Your task to perform on an android device: install app "DoorDash - Food Delivery" Image 0: 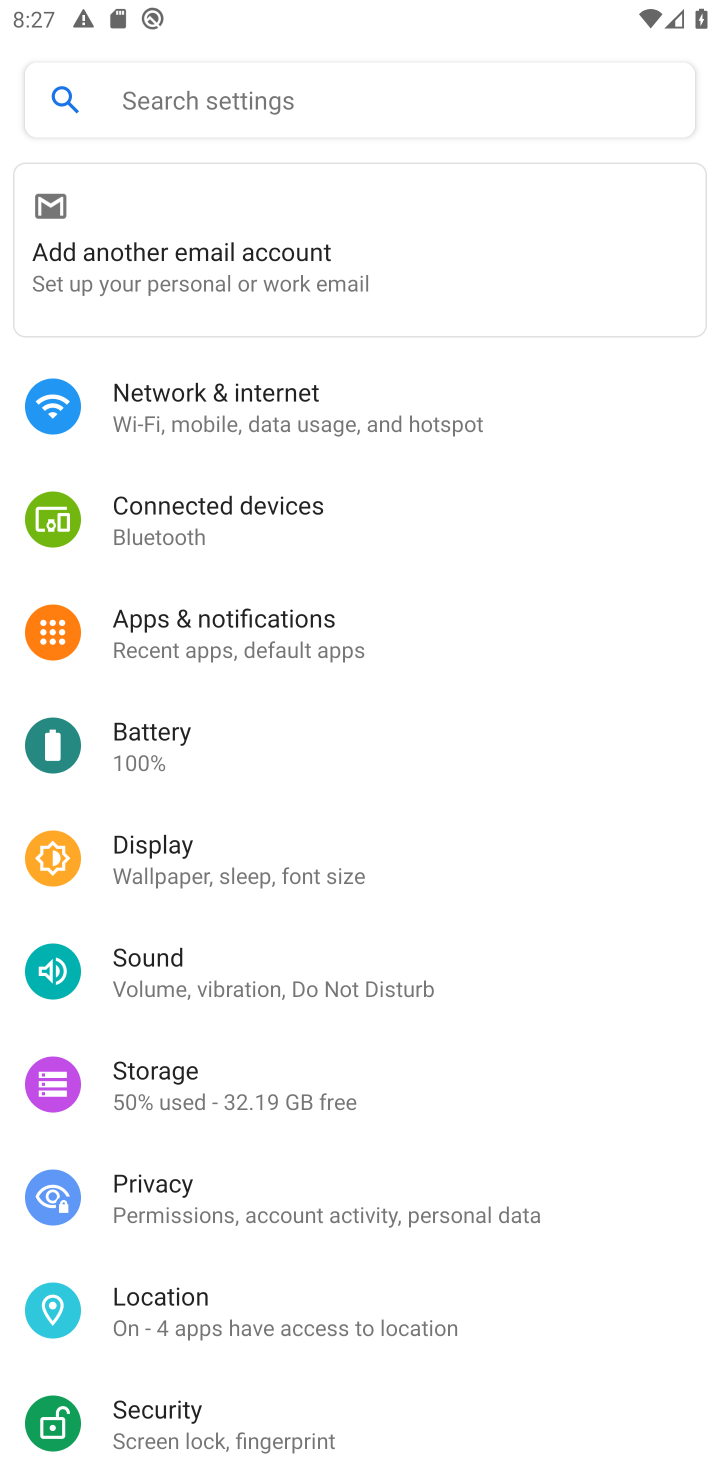
Step 0: press home button
Your task to perform on an android device: install app "DoorDash - Food Delivery" Image 1: 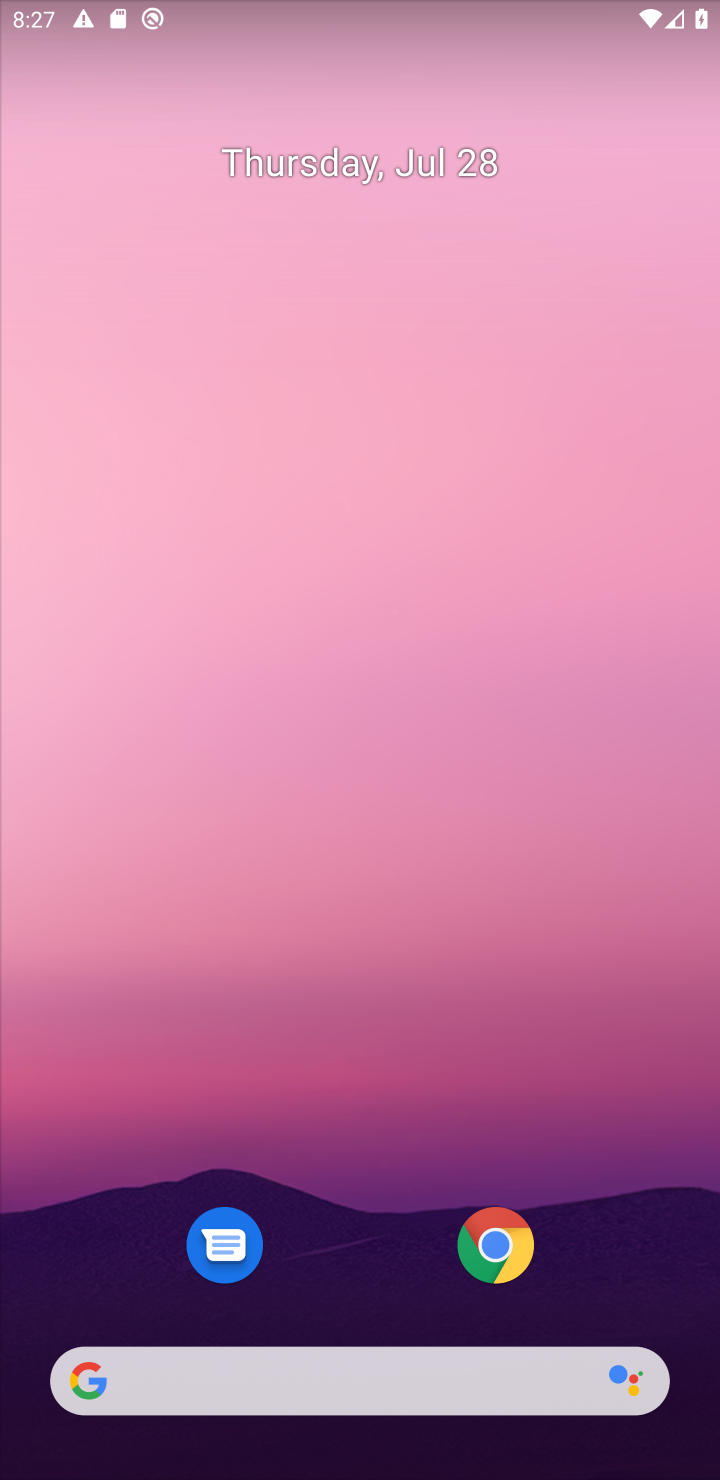
Step 1: drag from (394, 1259) to (269, 246)
Your task to perform on an android device: install app "DoorDash - Food Delivery" Image 2: 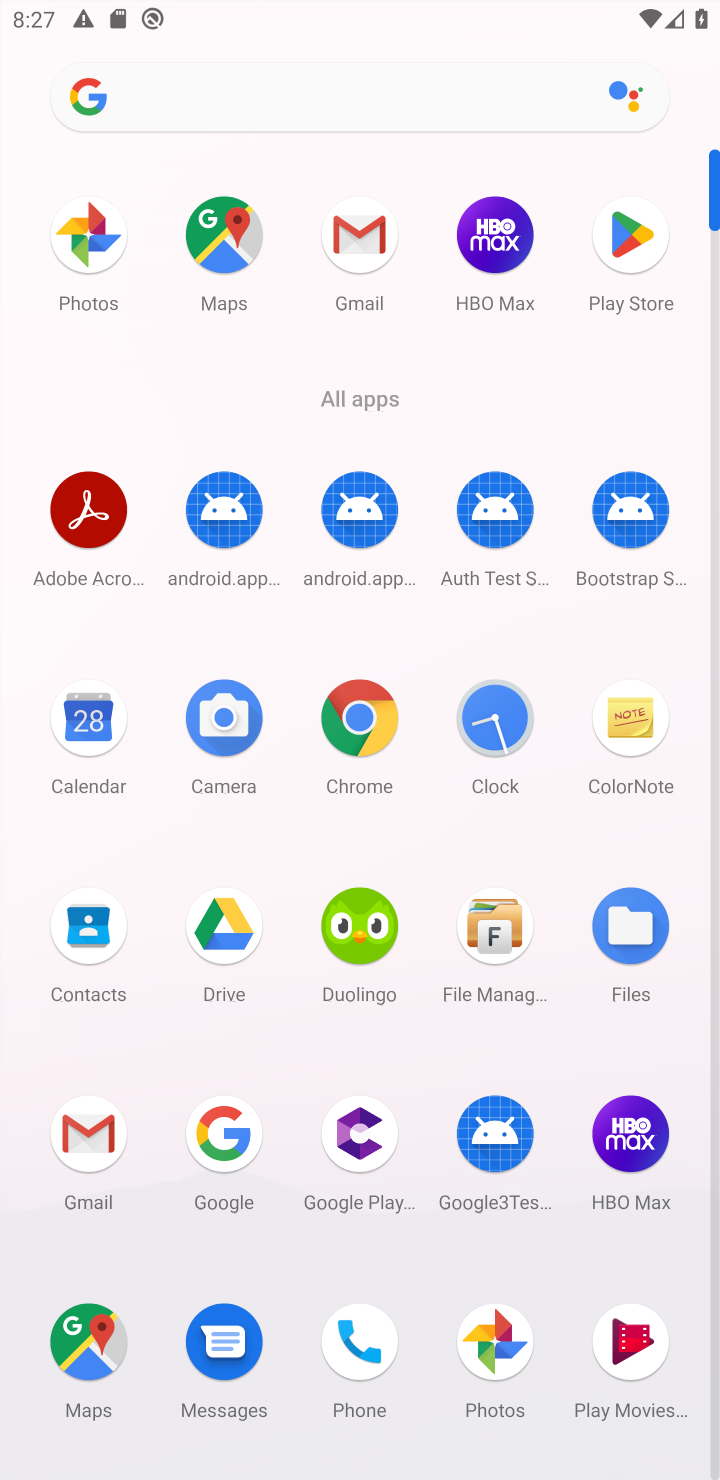
Step 2: click (630, 217)
Your task to perform on an android device: install app "DoorDash - Food Delivery" Image 3: 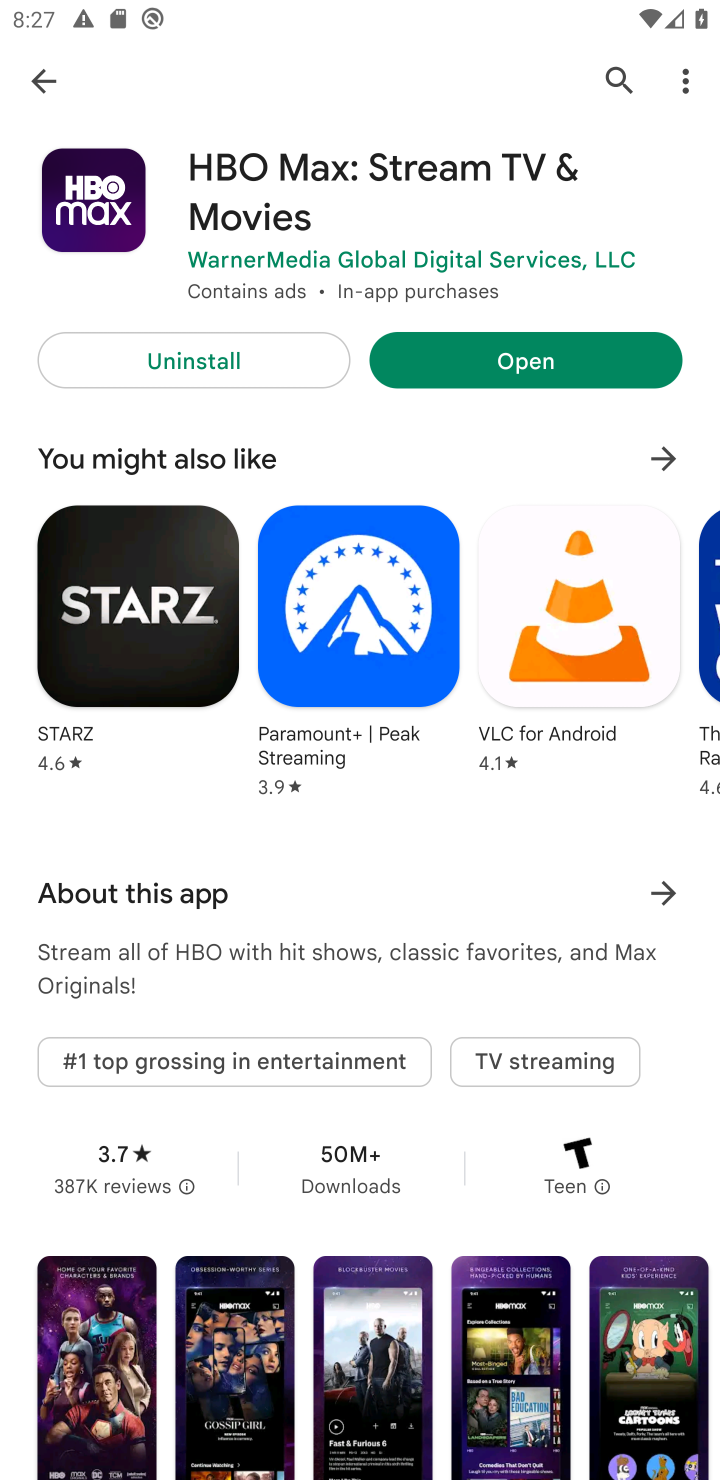
Step 3: click (626, 86)
Your task to perform on an android device: install app "DoorDash - Food Delivery" Image 4: 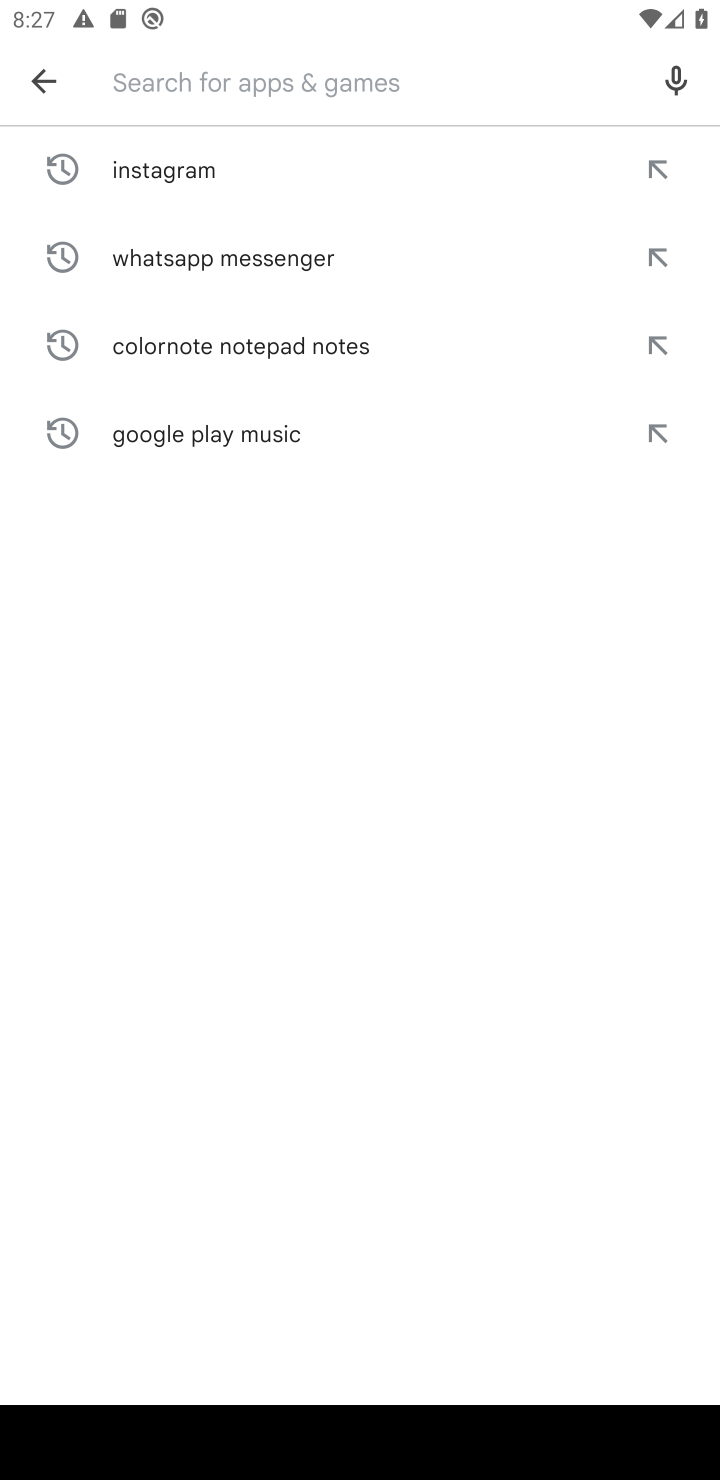
Step 4: type "DoorDash - Food Delivery"
Your task to perform on an android device: install app "DoorDash - Food Delivery" Image 5: 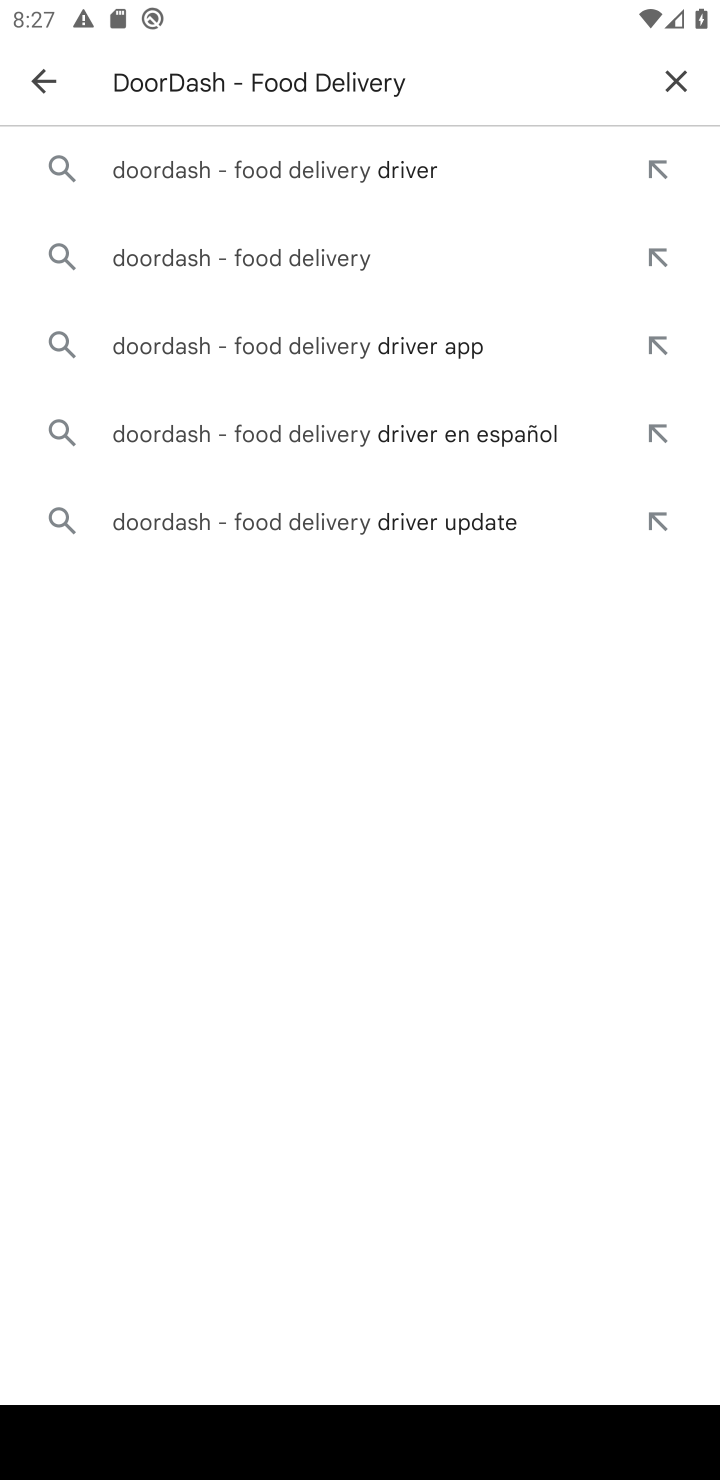
Step 5: click (279, 254)
Your task to perform on an android device: install app "DoorDash - Food Delivery" Image 6: 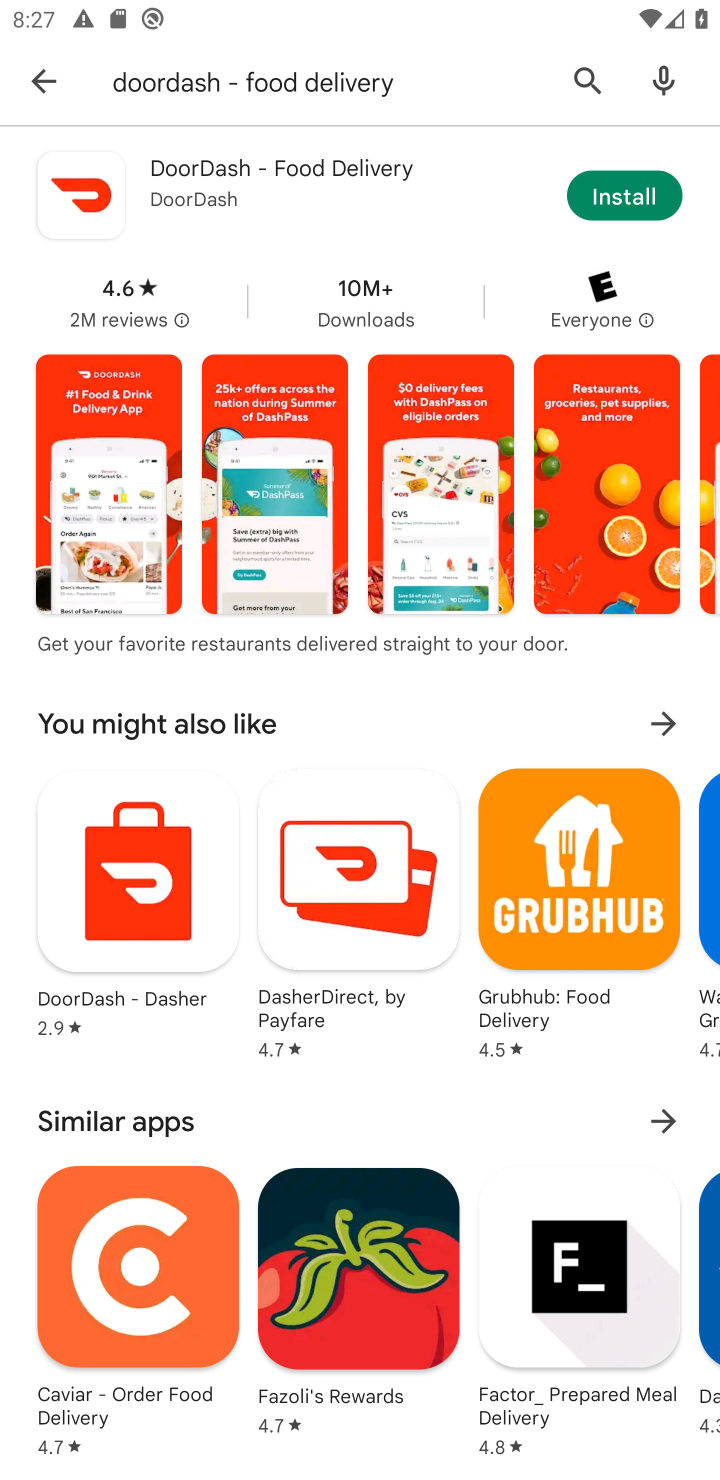
Step 6: click (314, 154)
Your task to perform on an android device: install app "DoorDash - Food Delivery" Image 7: 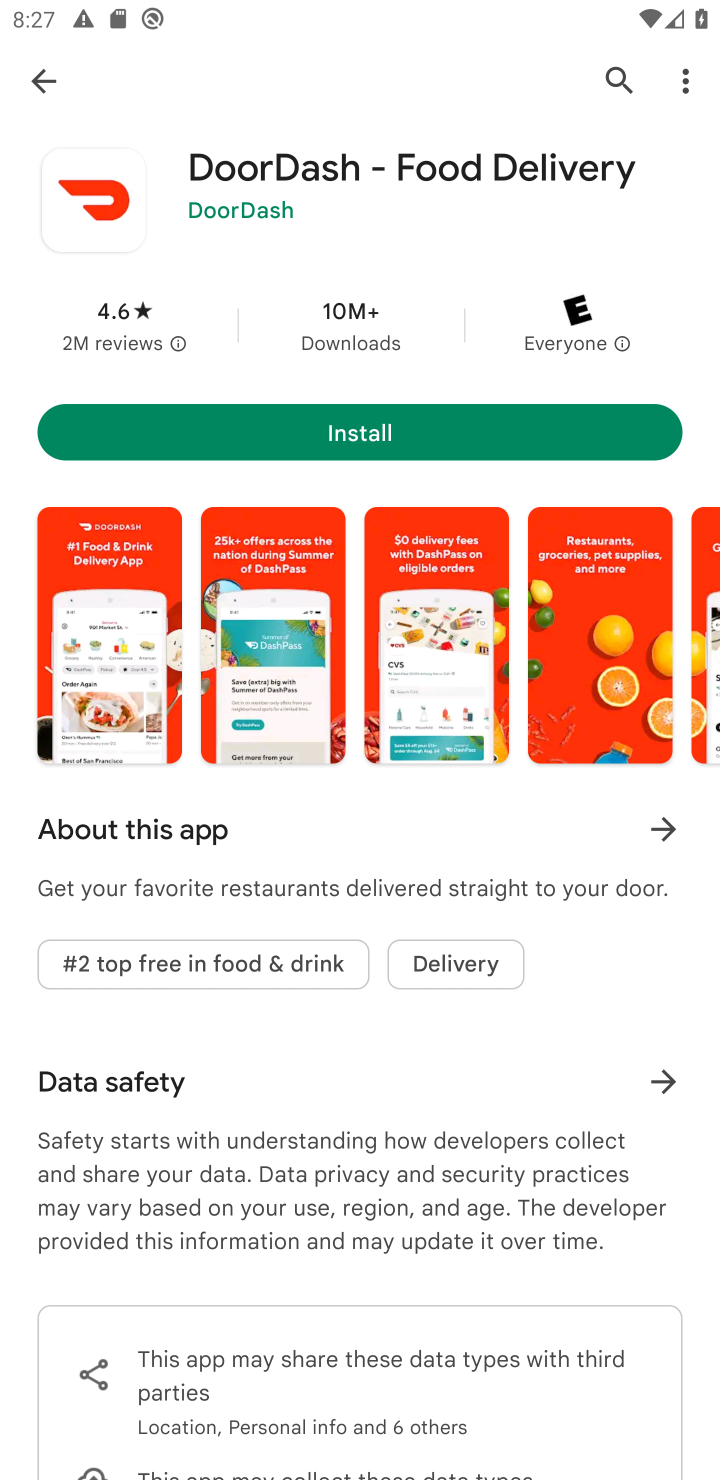
Step 7: click (218, 404)
Your task to perform on an android device: install app "DoorDash - Food Delivery" Image 8: 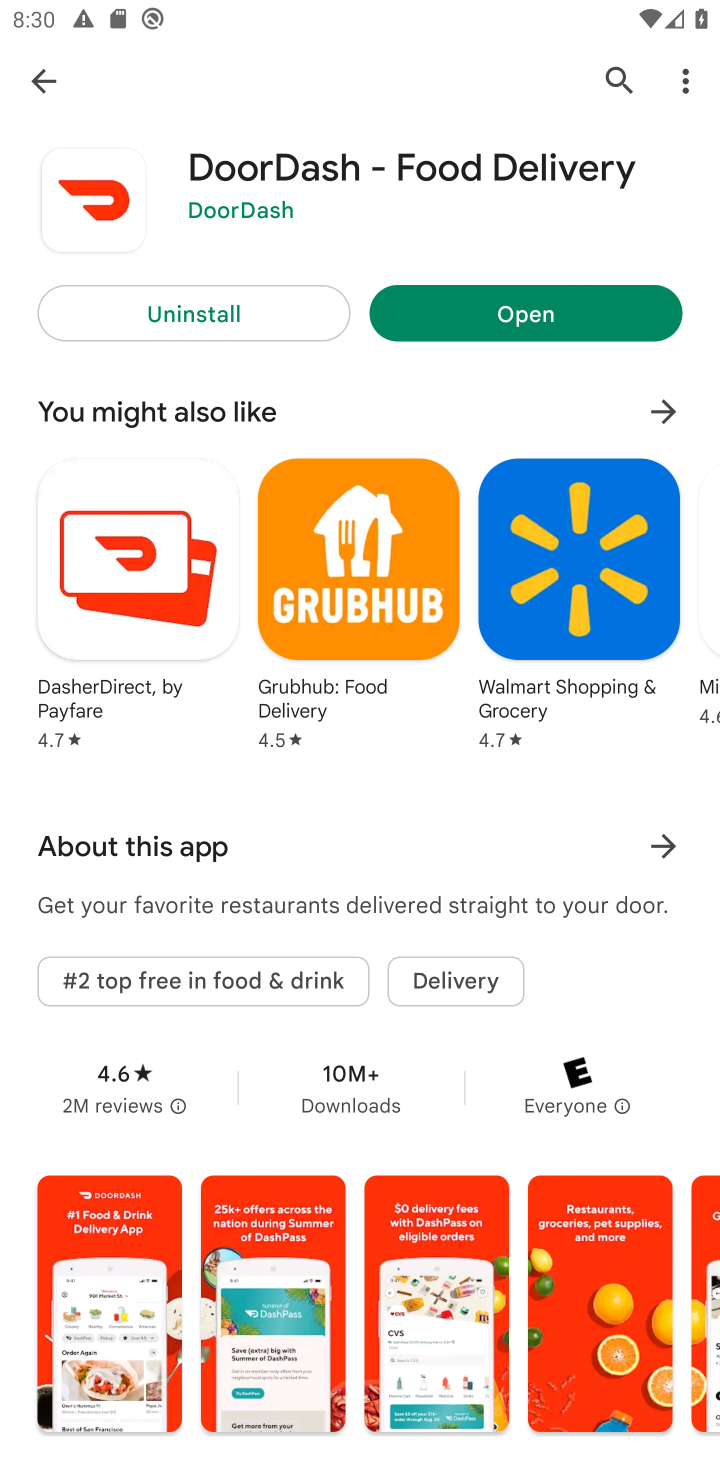
Step 8: task complete